Your task to perform on an android device: Do I have any events today? Image 0: 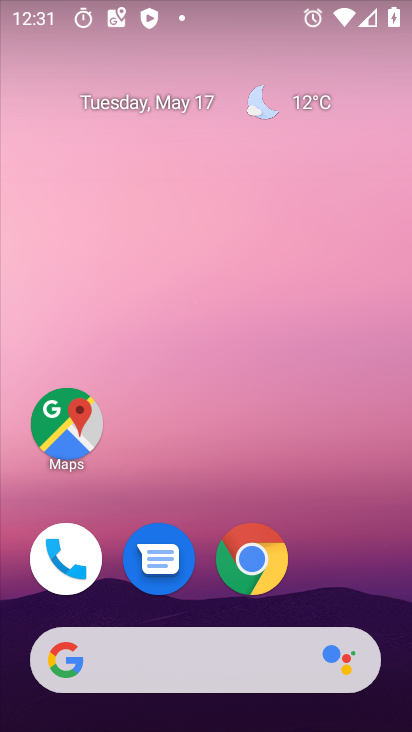
Step 0: drag from (334, 567) to (310, 72)
Your task to perform on an android device: Do I have any events today? Image 1: 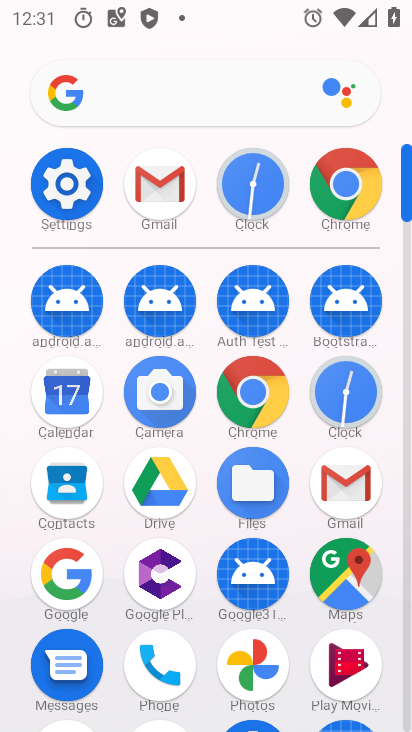
Step 1: click (77, 387)
Your task to perform on an android device: Do I have any events today? Image 2: 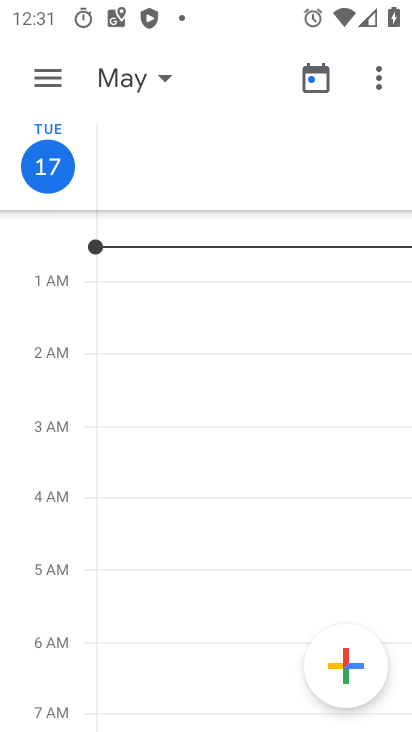
Step 2: task complete